Your task to perform on an android device: toggle notification dots Image 0: 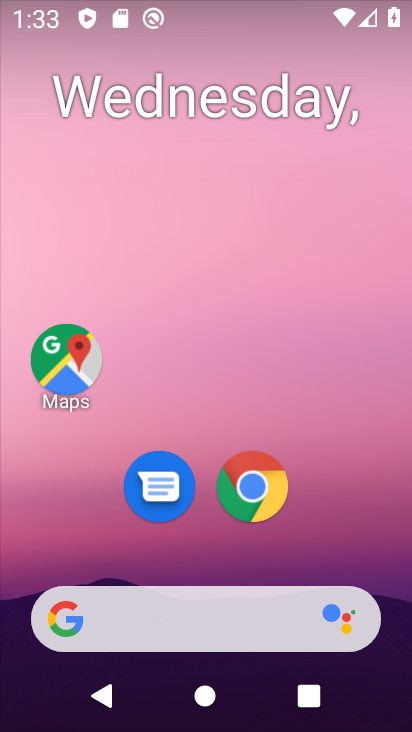
Step 0: drag from (271, 693) to (247, 11)
Your task to perform on an android device: toggle notification dots Image 1: 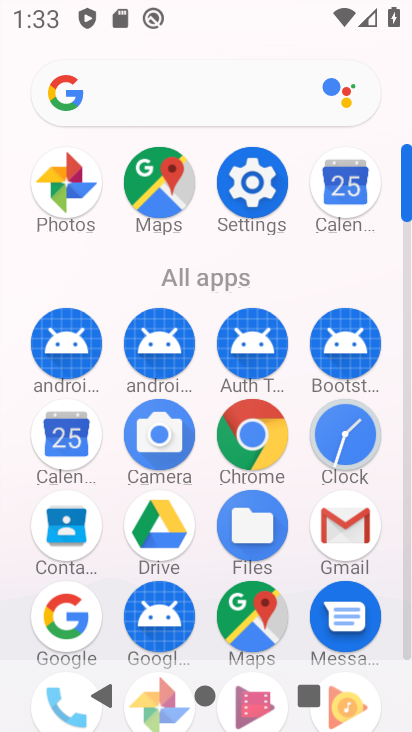
Step 1: click (245, 194)
Your task to perform on an android device: toggle notification dots Image 2: 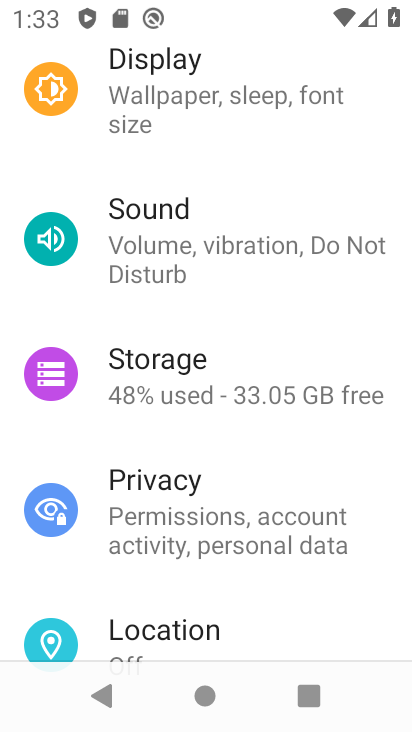
Step 2: drag from (207, 579) to (218, 35)
Your task to perform on an android device: toggle notification dots Image 3: 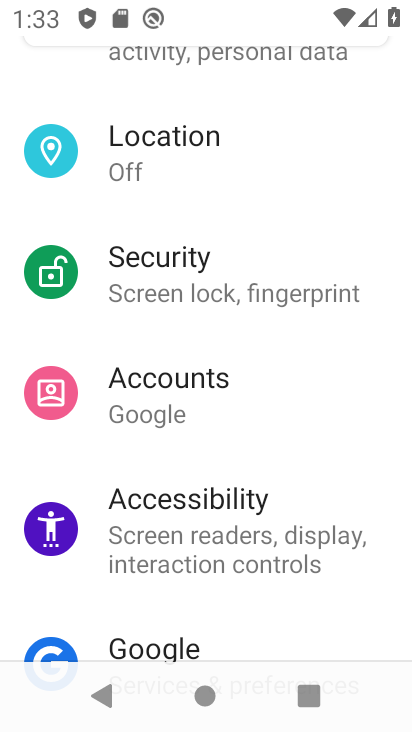
Step 3: drag from (215, 598) to (199, 5)
Your task to perform on an android device: toggle notification dots Image 4: 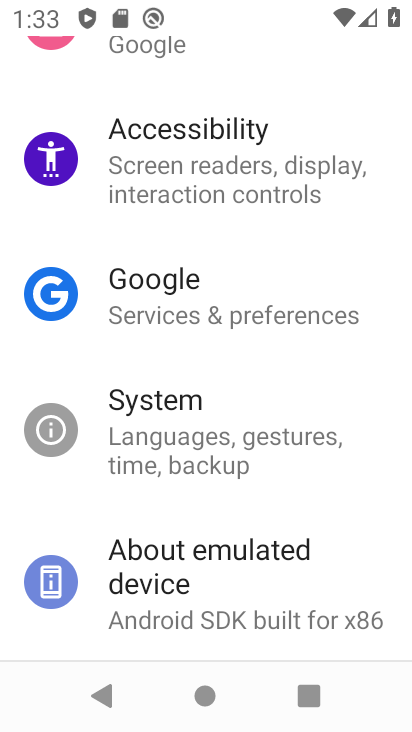
Step 4: drag from (322, 116) to (320, 549)
Your task to perform on an android device: toggle notification dots Image 5: 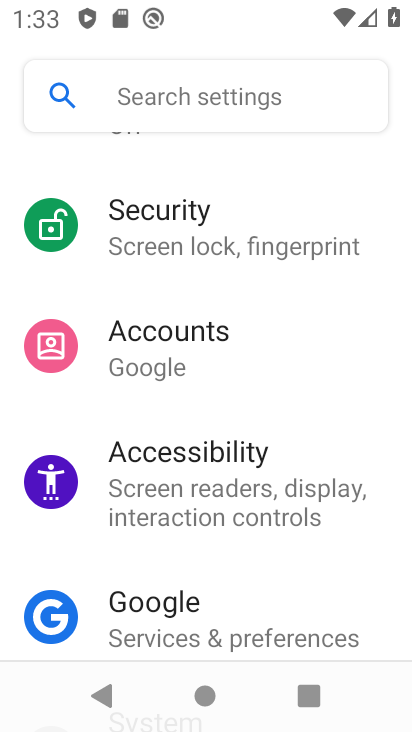
Step 5: drag from (309, 167) to (274, 614)
Your task to perform on an android device: toggle notification dots Image 6: 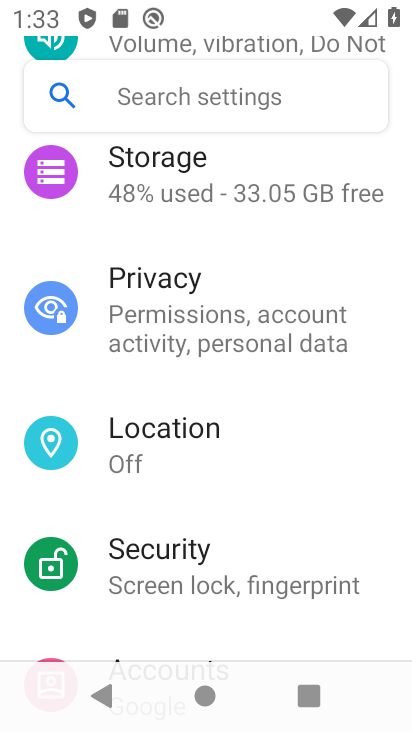
Step 6: drag from (292, 206) to (319, 613)
Your task to perform on an android device: toggle notification dots Image 7: 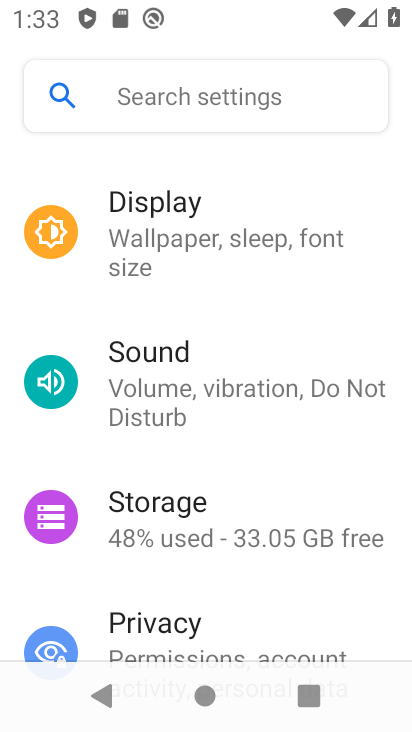
Step 7: drag from (322, 213) to (260, 617)
Your task to perform on an android device: toggle notification dots Image 8: 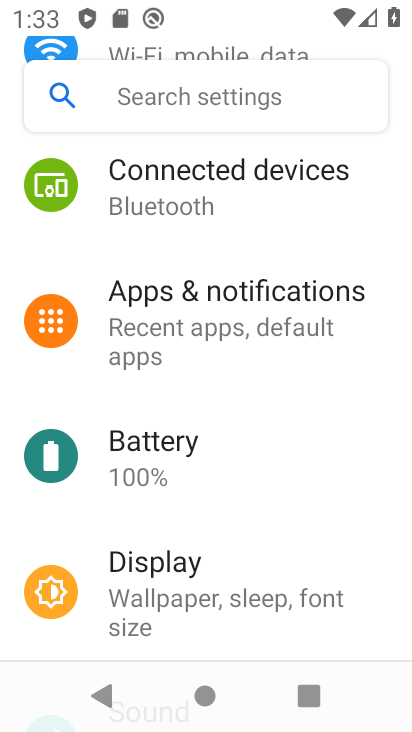
Step 8: click (281, 310)
Your task to perform on an android device: toggle notification dots Image 9: 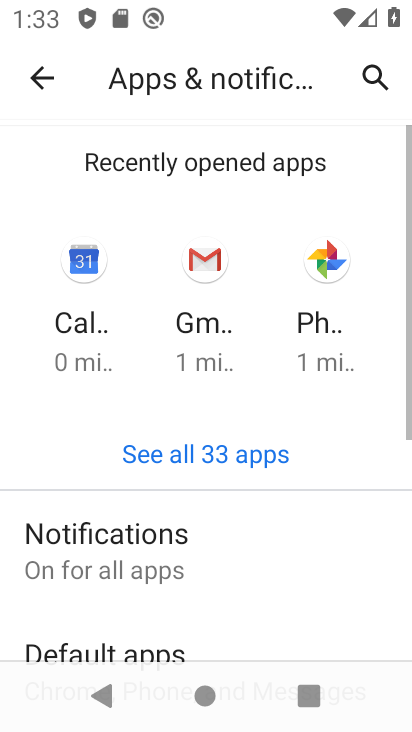
Step 9: click (147, 575)
Your task to perform on an android device: toggle notification dots Image 10: 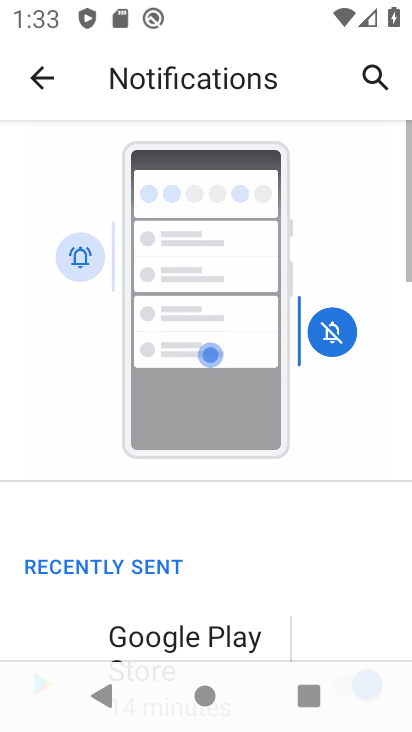
Step 10: drag from (265, 617) to (188, 115)
Your task to perform on an android device: toggle notification dots Image 11: 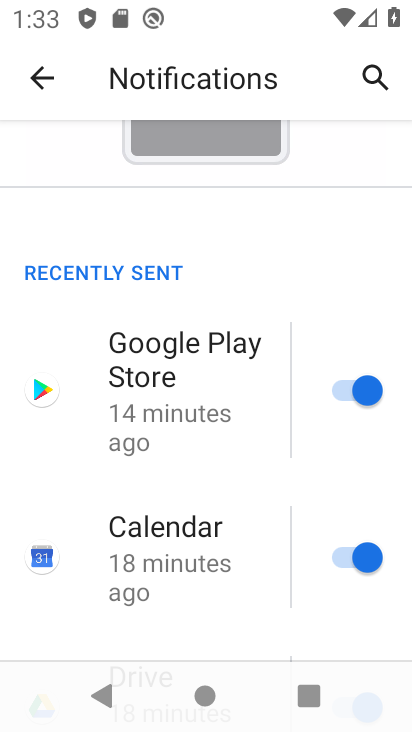
Step 11: drag from (208, 553) to (242, 75)
Your task to perform on an android device: toggle notification dots Image 12: 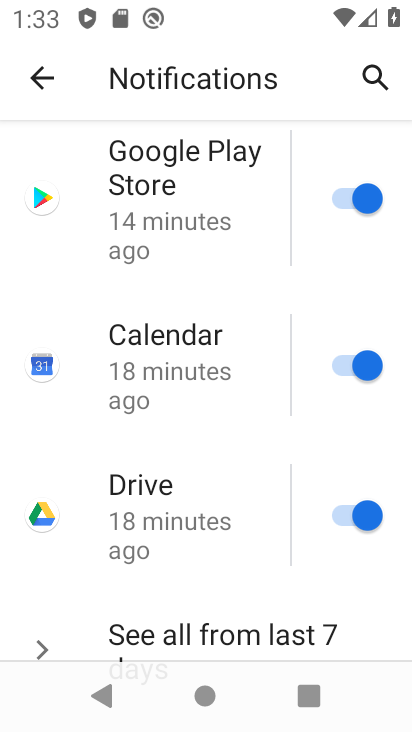
Step 12: drag from (240, 532) to (307, 10)
Your task to perform on an android device: toggle notification dots Image 13: 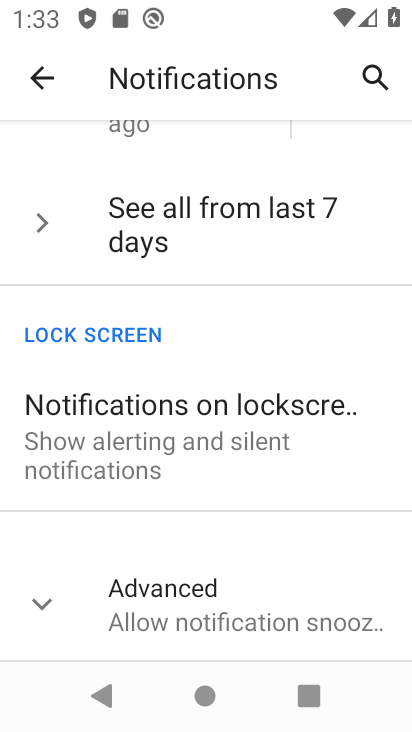
Step 13: click (216, 596)
Your task to perform on an android device: toggle notification dots Image 14: 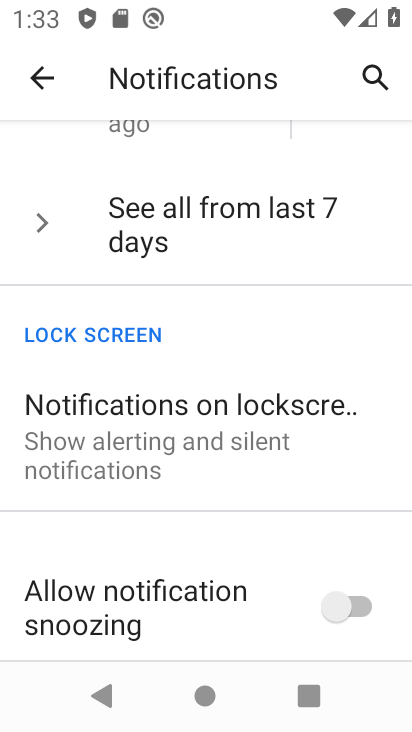
Step 14: drag from (299, 603) to (362, 165)
Your task to perform on an android device: toggle notification dots Image 15: 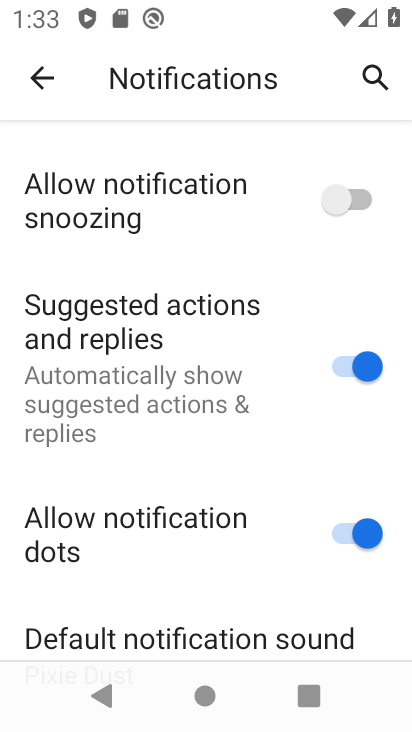
Step 15: click (348, 539)
Your task to perform on an android device: toggle notification dots Image 16: 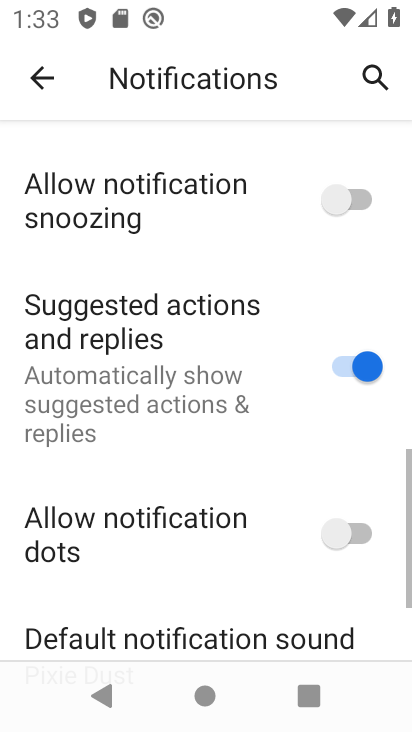
Step 16: task complete